Your task to perform on an android device: turn off sleep mode Image 0: 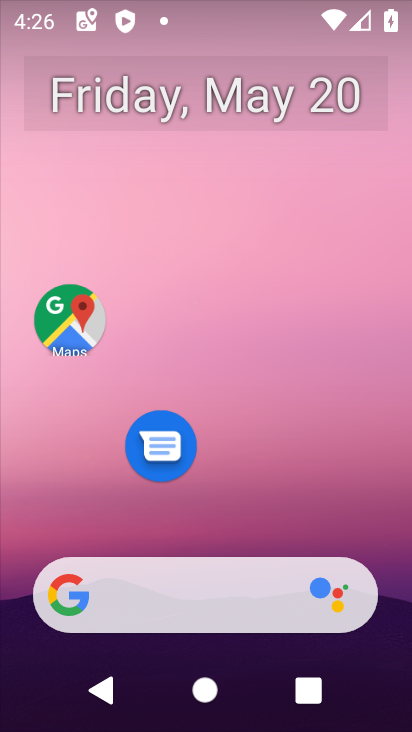
Step 0: drag from (234, 509) to (245, 151)
Your task to perform on an android device: turn off sleep mode Image 1: 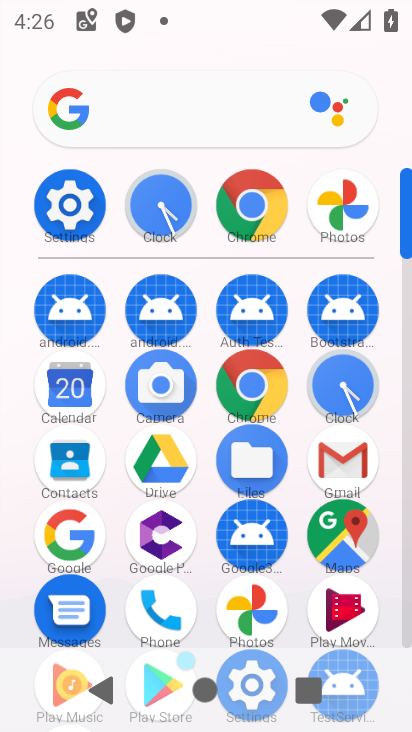
Step 1: click (84, 211)
Your task to perform on an android device: turn off sleep mode Image 2: 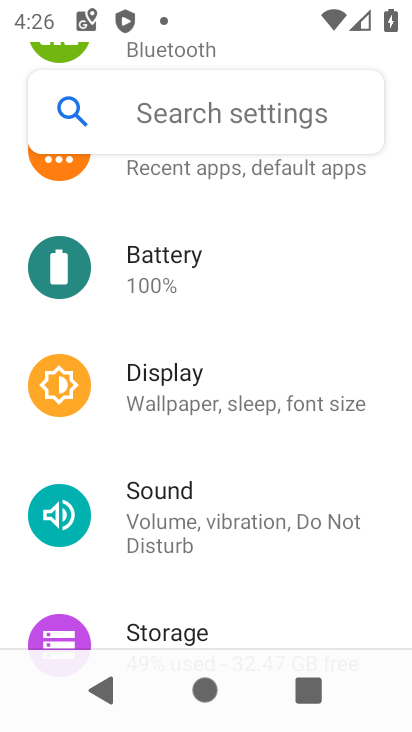
Step 2: click (223, 100)
Your task to perform on an android device: turn off sleep mode Image 3: 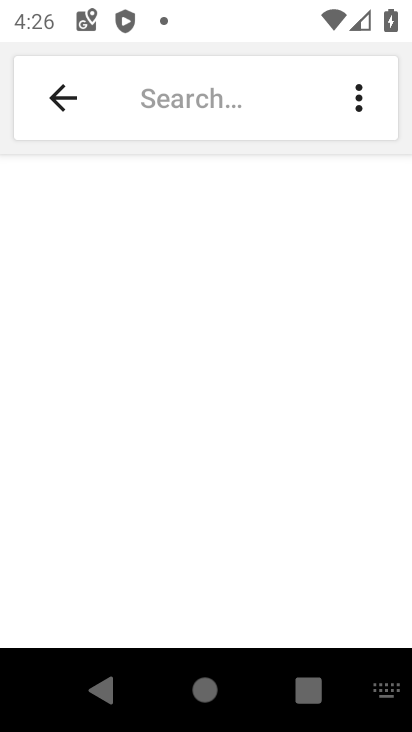
Step 3: type "sleep mode"
Your task to perform on an android device: turn off sleep mode Image 4: 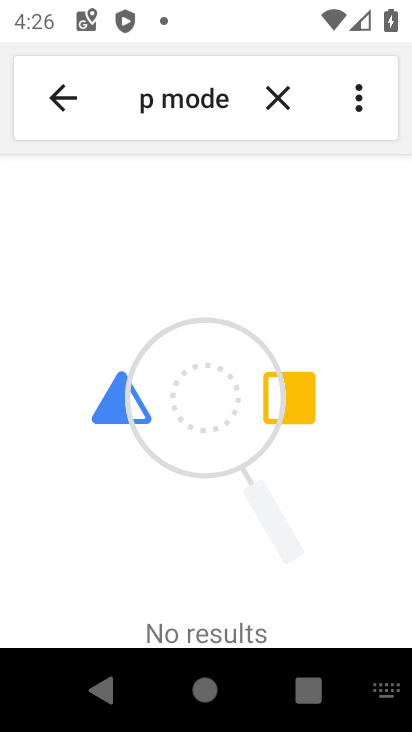
Step 4: task complete